Your task to perform on an android device: Open Google Chrome Image 0: 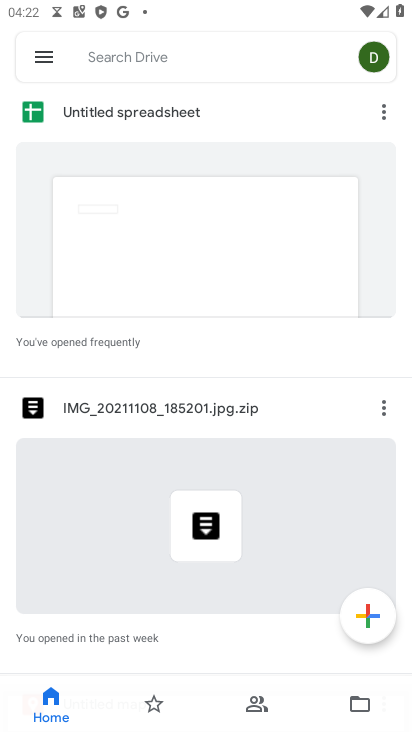
Step 0: press home button
Your task to perform on an android device: Open Google Chrome Image 1: 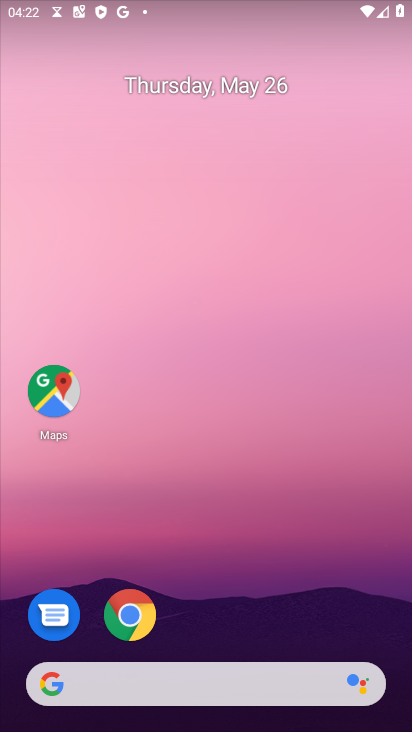
Step 1: click (126, 620)
Your task to perform on an android device: Open Google Chrome Image 2: 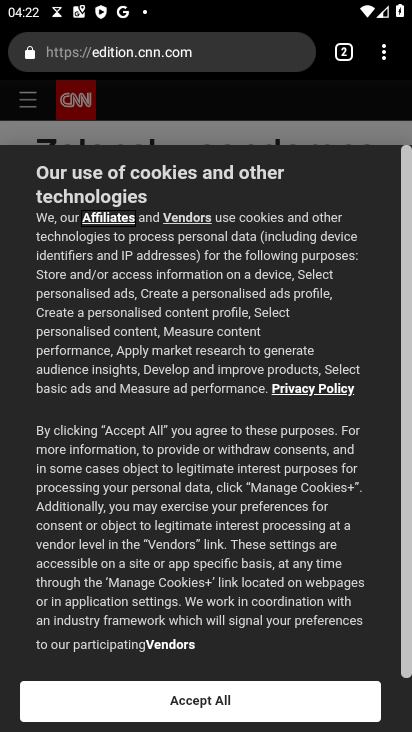
Step 2: press home button
Your task to perform on an android device: Open Google Chrome Image 3: 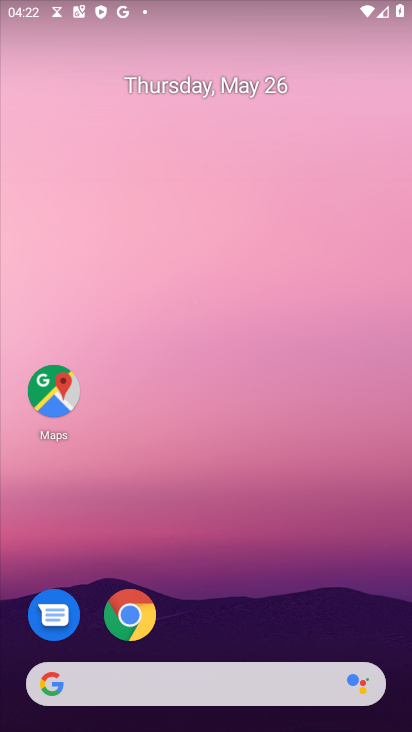
Step 3: click (134, 621)
Your task to perform on an android device: Open Google Chrome Image 4: 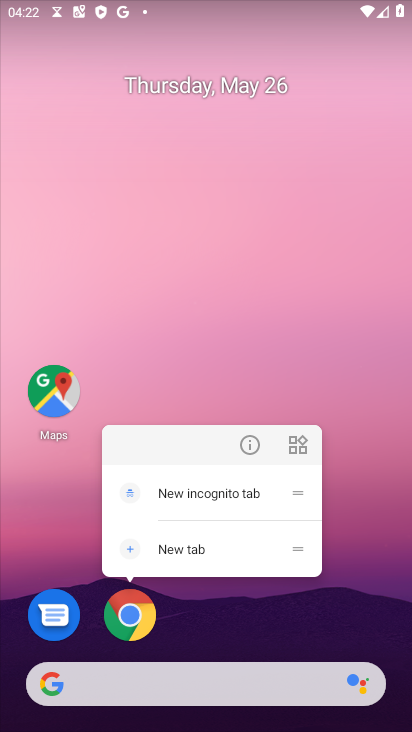
Step 4: click (131, 619)
Your task to perform on an android device: Open Google Chrome Image 5: 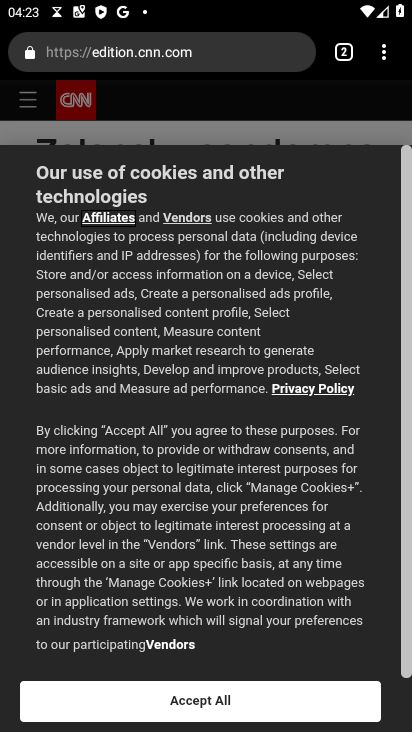
Step 5: task complete